Your task to perform on an android device: Open accessibility settings Image 0: 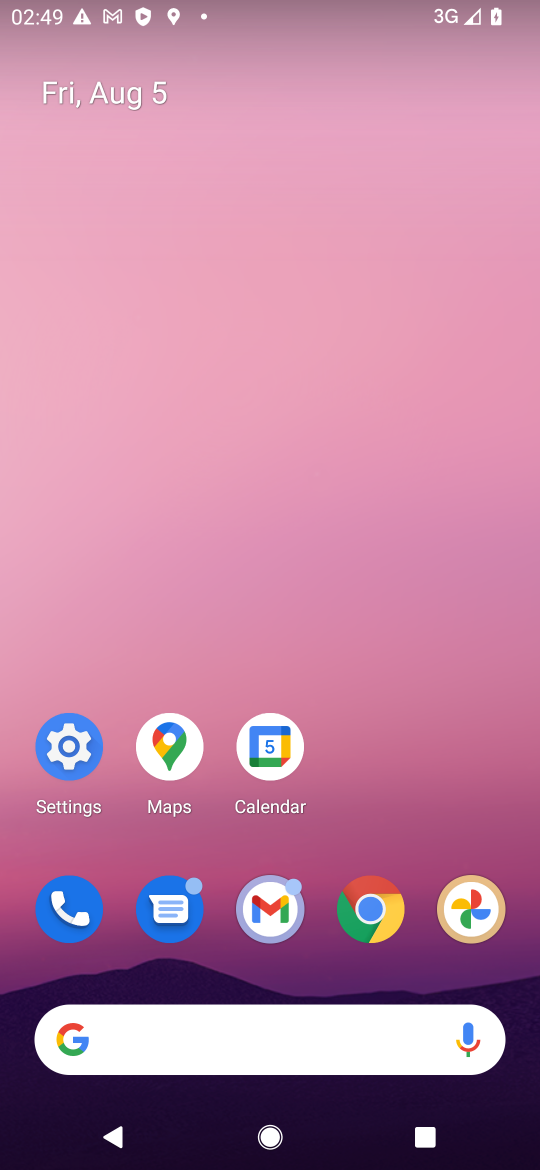
Step 0: click (65, 731)
Your task to perform on an android device: Open accessibility settings Image 1: 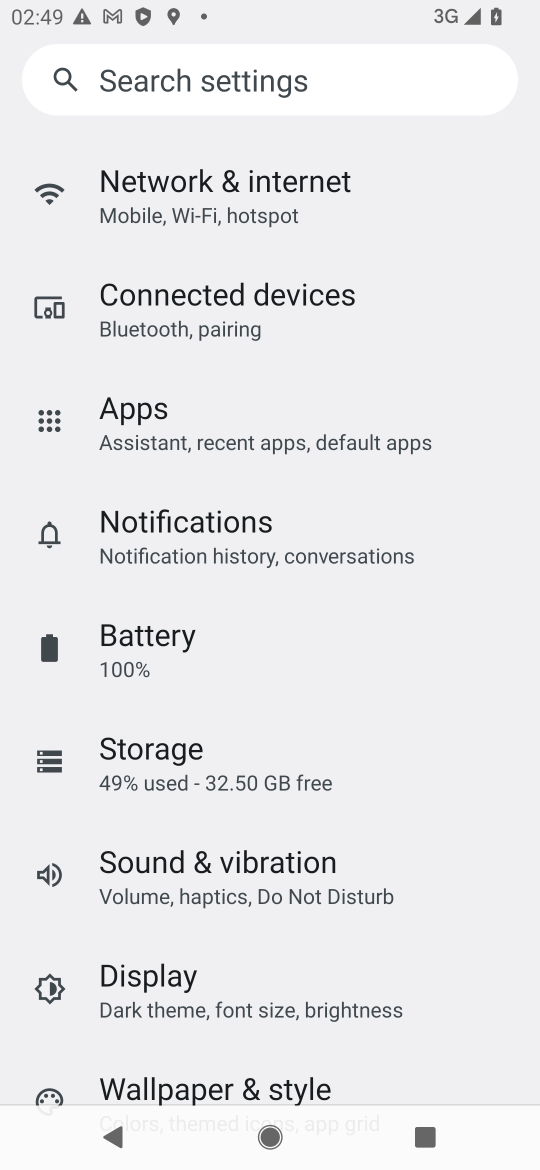
Step 1: drag from (341, 958) to (315, 346)
Your task to perform on an android device: Open accessibility settings Image 2: 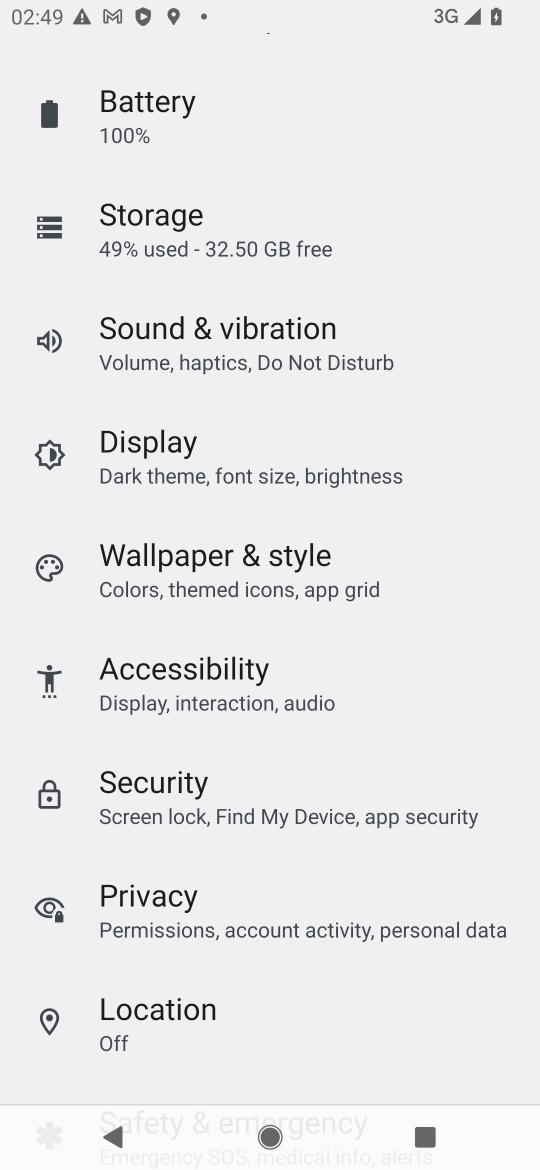
Step 2: click (199, 667)
Your task to perform on an android device: Open accessibility settings Image 3: 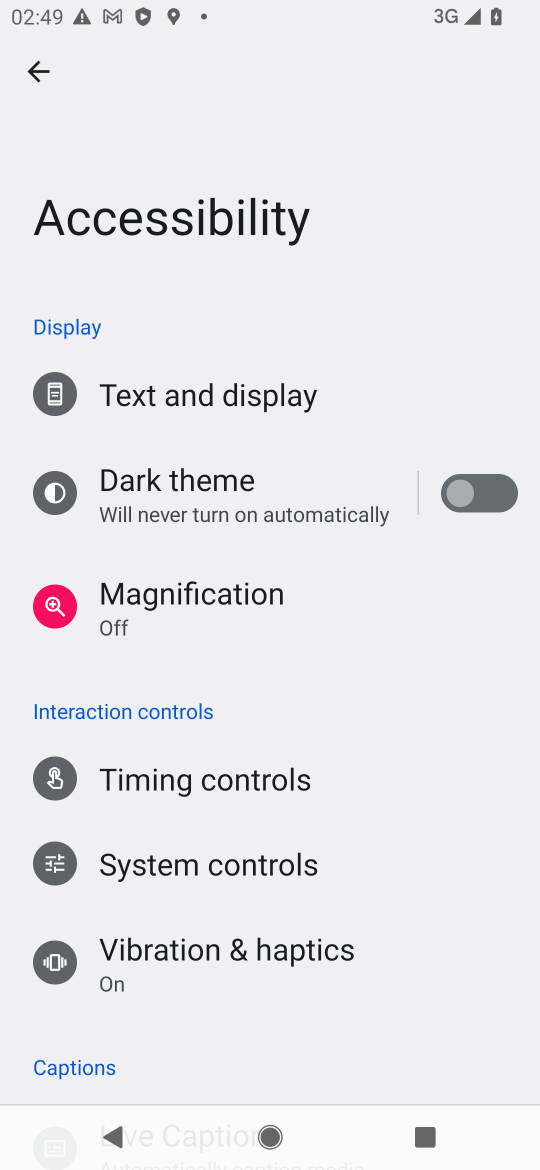
Step 3: task complete